Your task to perform on an android device: check data usage Image 0: 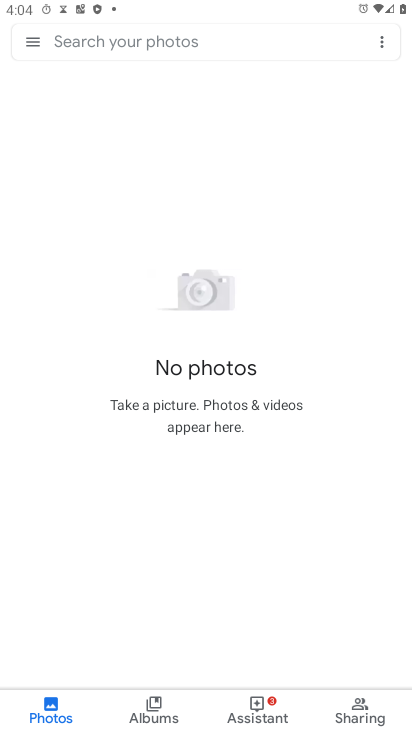
Step 0: press home button
Your task to perform on an android device: check data usage Image 1: 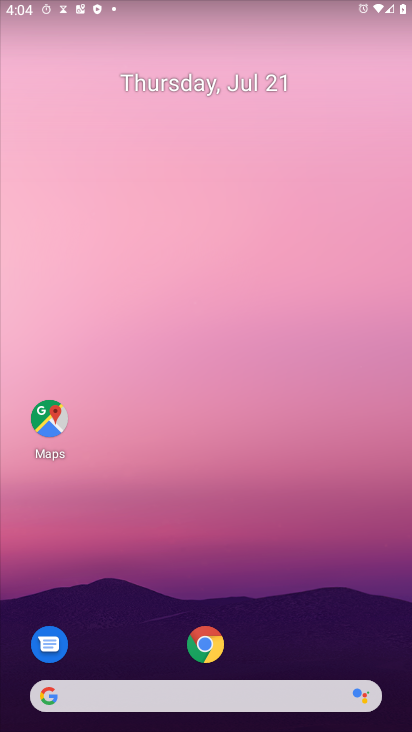
Step 1: drag from (312, 624) to (336, 89)
Your task to perform on an android device: check data usage Image 2: 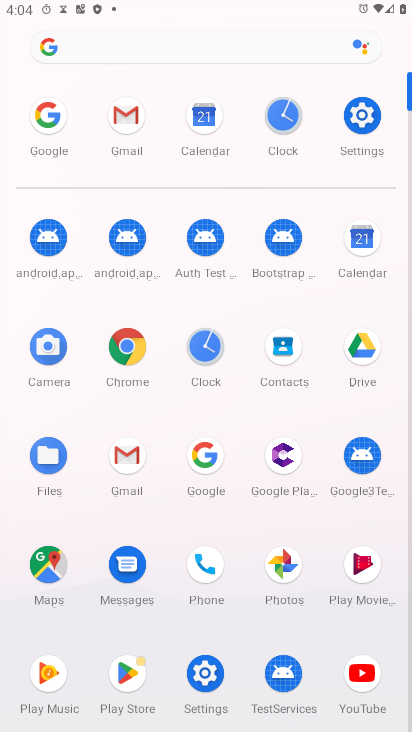
Step 2: click (366, 122)
Your task to perform on an android device: check data usage Image 3: 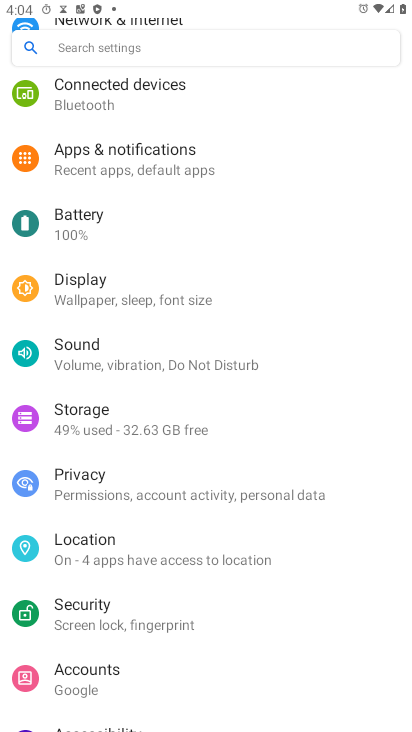
Step 3: drag from (278, 136) to (286, 582)
Your task to perform on an android device: check data usage Image 4: 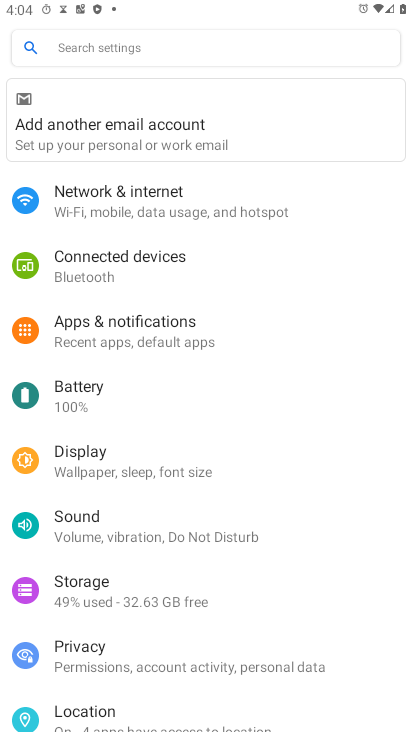
Step 4: click (99, 205)
Your task to perform on an android device: check data usage Image 5: 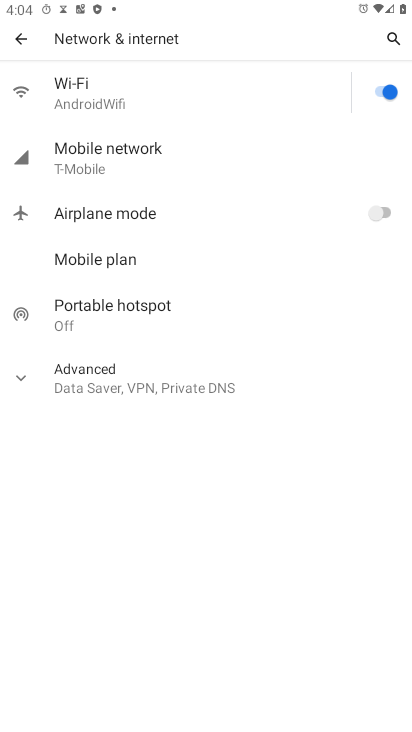
Step 5: click (92, 156)
Your task to perform on an android device: check data usage Image 6: 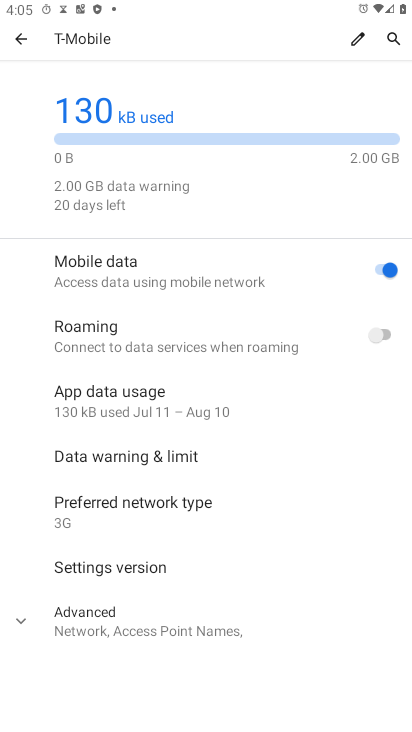
Step 6: click (133, 417)
Your task to perform on an android device: check data usage Image 7: 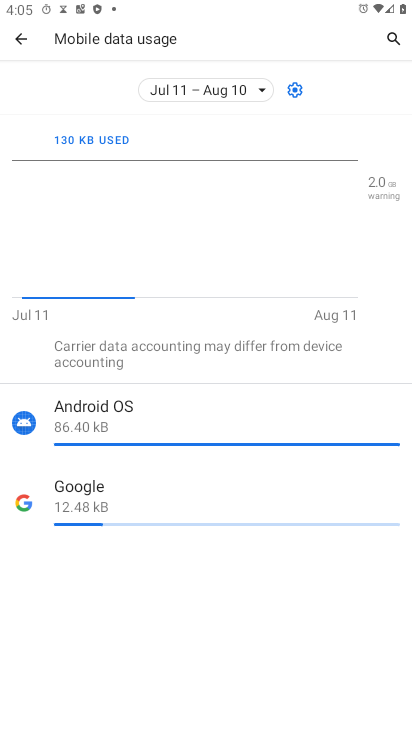
Step 7: task complete